Your task to perform on an android device: see creations saved in the google photos Image 0: 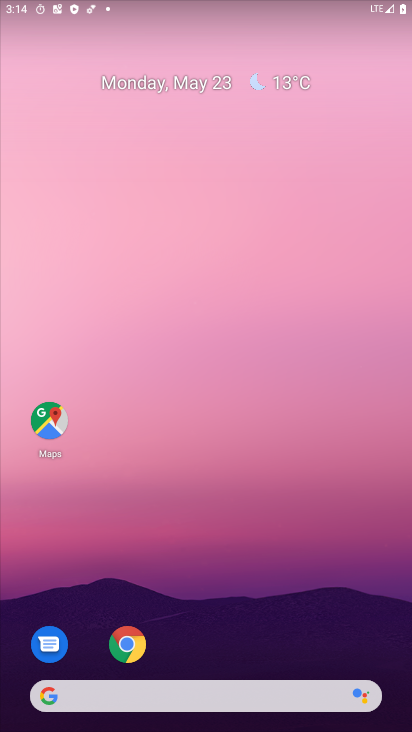
Step 0: drag from (198, 671) to (351, 349)
Your task to perform on an android device: see creations saved in the google photos Image 1: 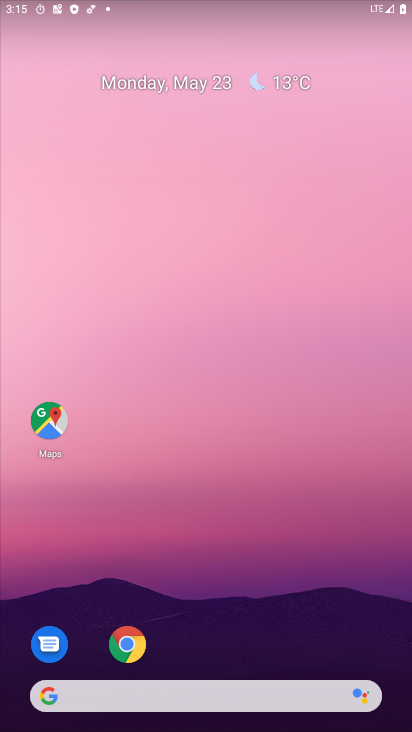
Step 1: drag from (226, 678) to (4, 437)
Your task to perform on an android device: see creations saved in the google photos Image 2: 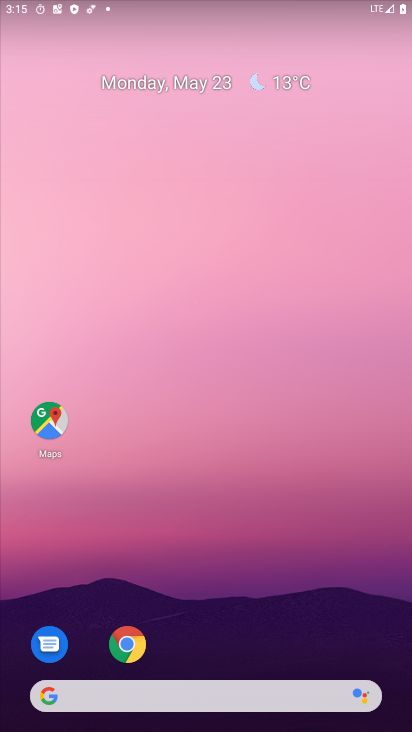
Step 2: drag from (237, 665) to (404, 20)
Your task to perform on an android device: see creations saved in the google photos Image 3: 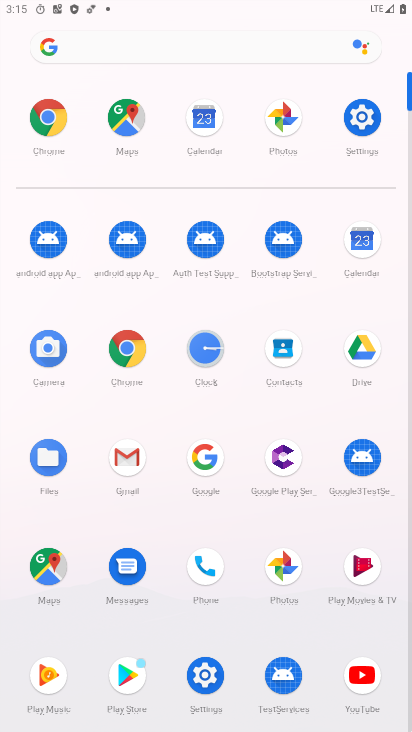
Step 3: click (291, 566)
Your task to perform on an android device: see creations saved in the google photos Image 4: 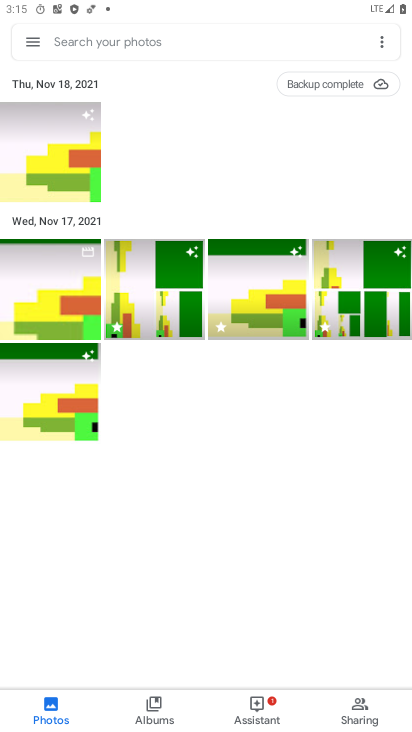
Step 4: click (181, 54)
Your task to perform on an android device: see creations saved in the google photos Image 5: 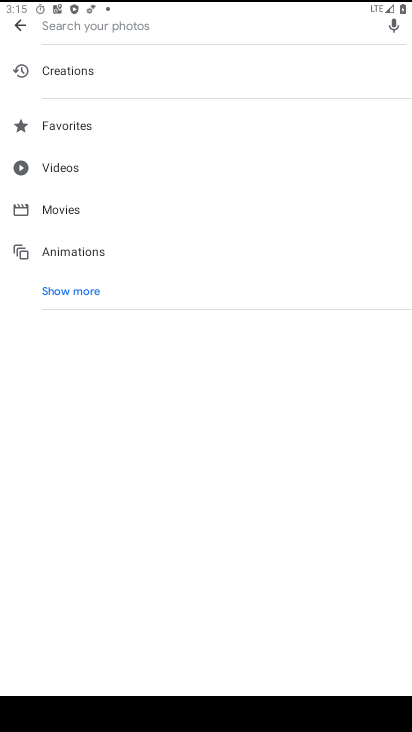
Step 5: click (63, 279)
Your task to perform on an android device: see creations saved in the google photos Image 6: 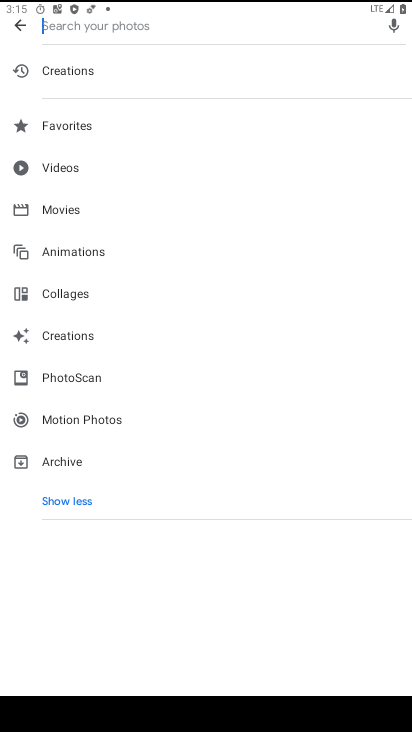
Step 6: click (61, 334)
Your task to perform on an android device: see creations saved in the google photos Image 7: 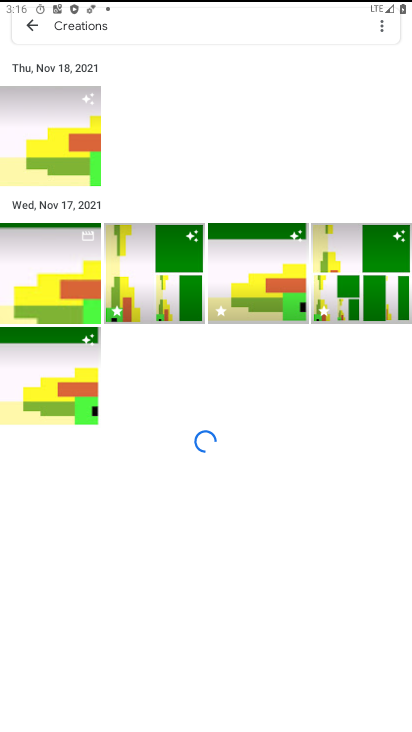
Step 7: task complete